Your task to perform on an android device: Open location settings Image 0: 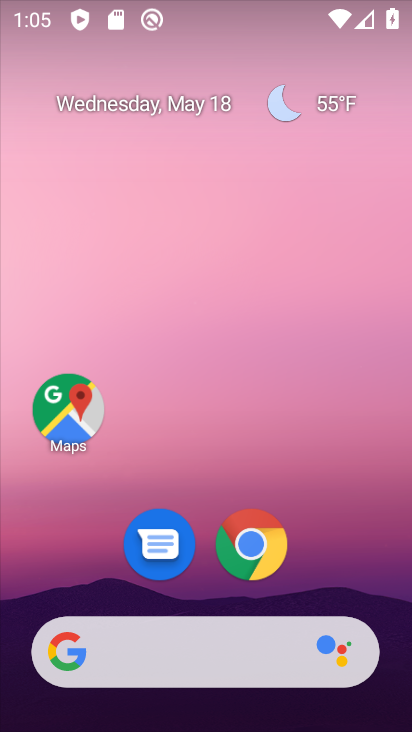
Step 0: drag from (320, 607) to (327, 280)
Your task to perform on an android device: Open location settings Image 1: 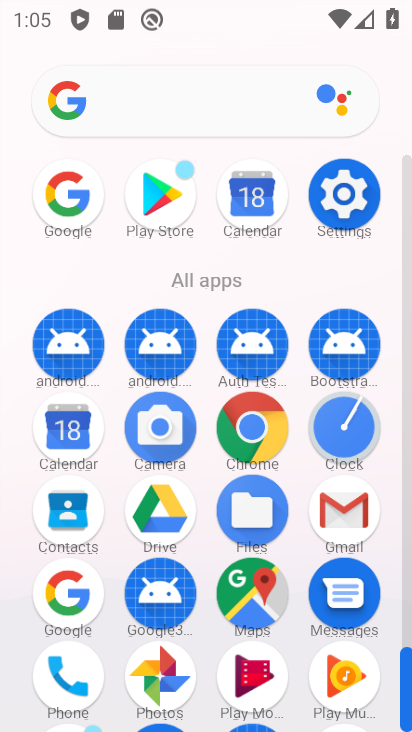
Step 1: click (337, 199)
Your task to perform on an android device: Open location settings Image 2: 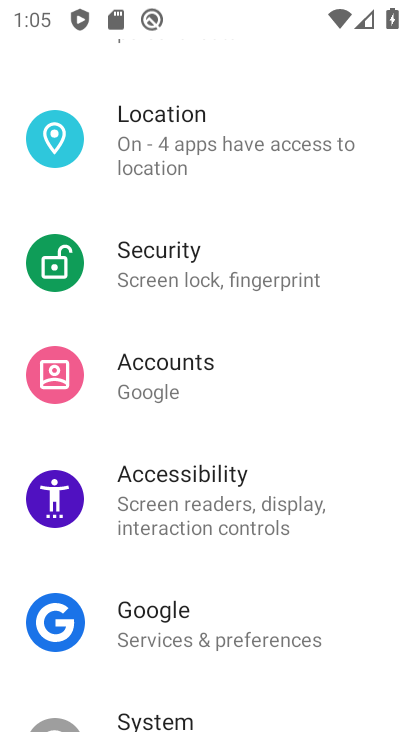
Step 2: drag from (259, 213) to (287, 517)
Your task to perform on an android device: Open location settings Image 3: 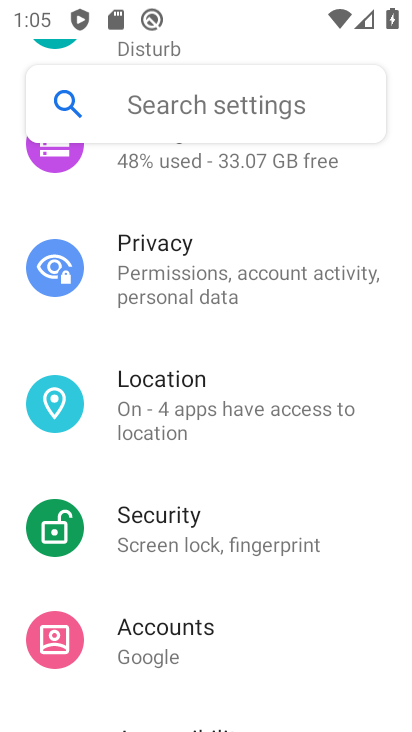
Step 3: click (180, 417)
Your task to perform on an android device: Open location settings Image 4: 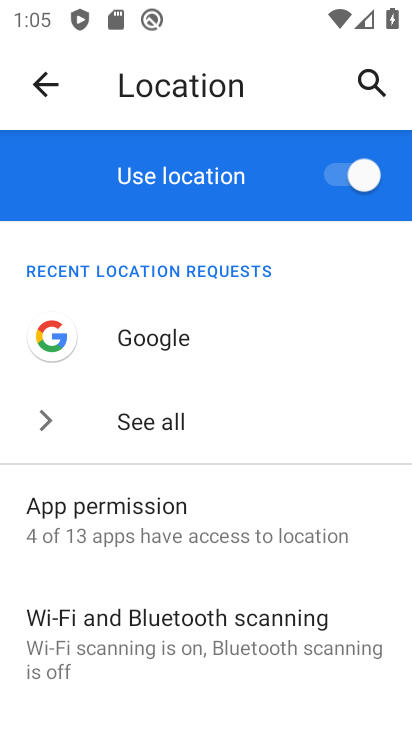
Step 4: task complete